Your task to perform on an android device: What's the weather? Image 0: 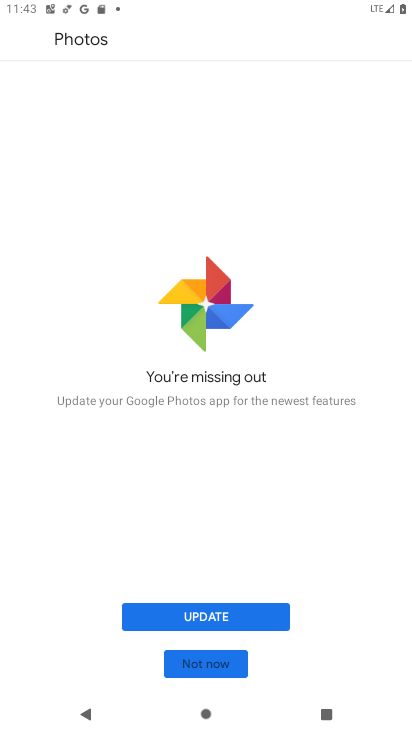
Step 0: press home button
Your task to perform on an android device: What's the weather? Image 1: 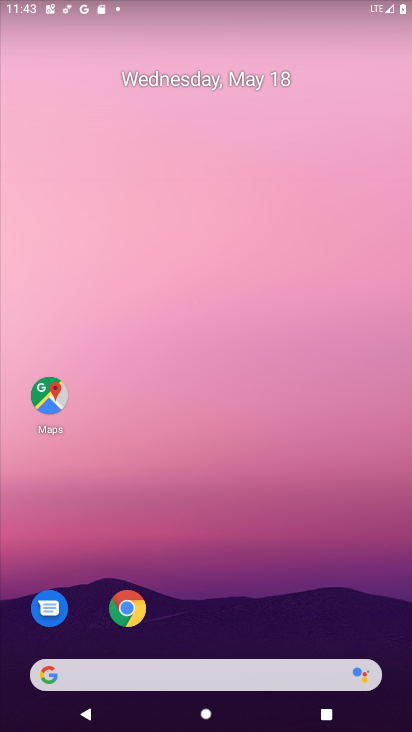
Step 1: click (140, 622)
Your task to perform on an android device: What's the weather? Image 2: 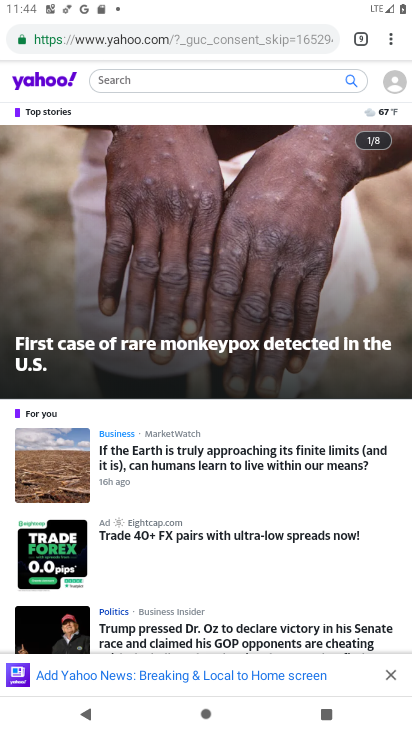
Step 2: click (367, 37)
Your task to perform on an android device: What's the weather? Image 3: 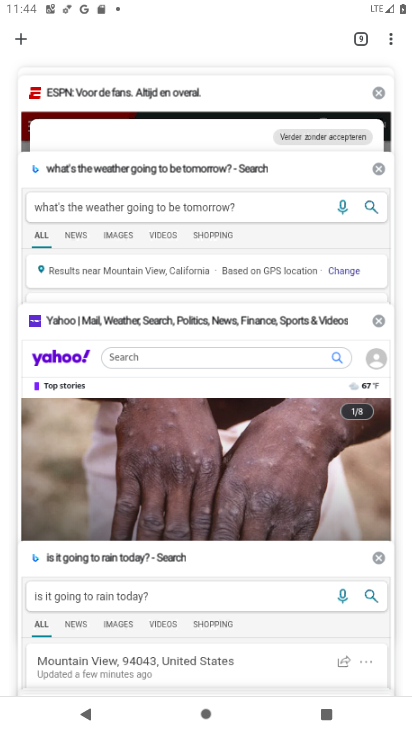
Step 3: drag from (160, 560) to (194, 272)
Your task to perform on an android device: What's the weather? Image 4: 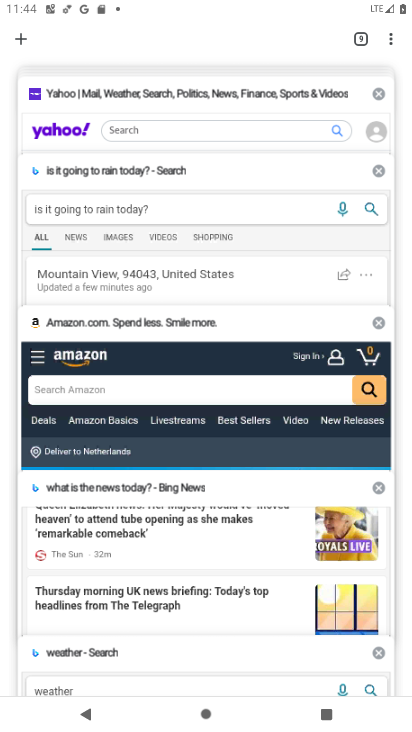
Step 4: click (135, 662)
Your task to perform on an android device: What's the weather? Image 5: 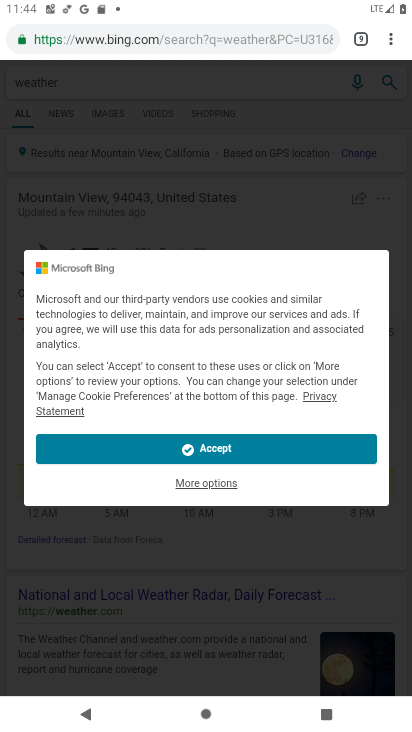
Step 5: click (199, 452)
Your task to perform on an android device: What's the weather? Image 6: 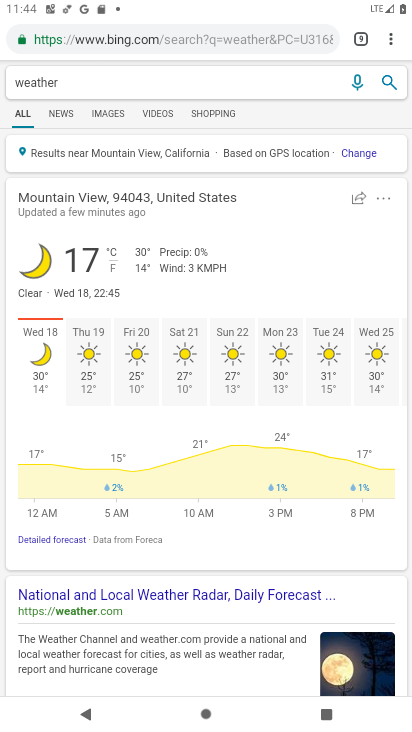
Step 6: task complete